Your task to perform on an android device: Open CNN.com Image 0: 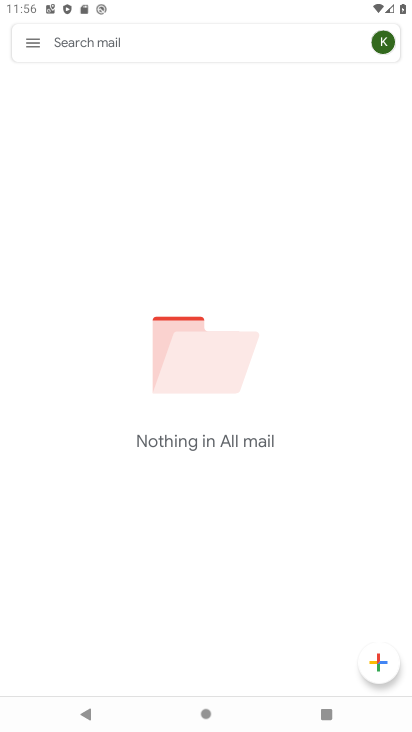
Step 0: press home button
Your task to perform on an android device: Open CNN.com Image 1: 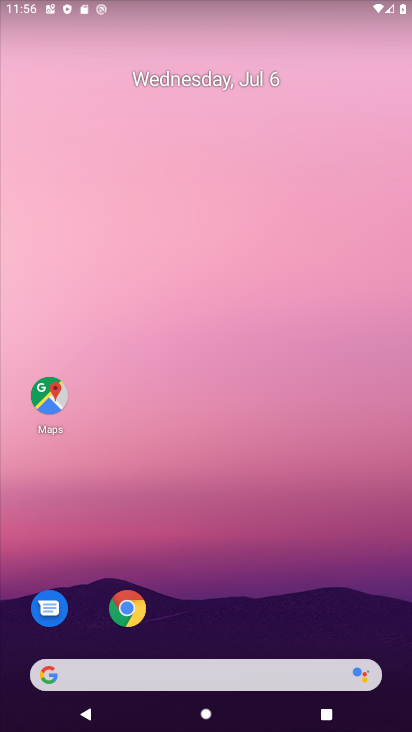
Step 1: drag from (156, 623) to (185, 222)
Your task to perform on an android device: Open CNN.com Image 2: 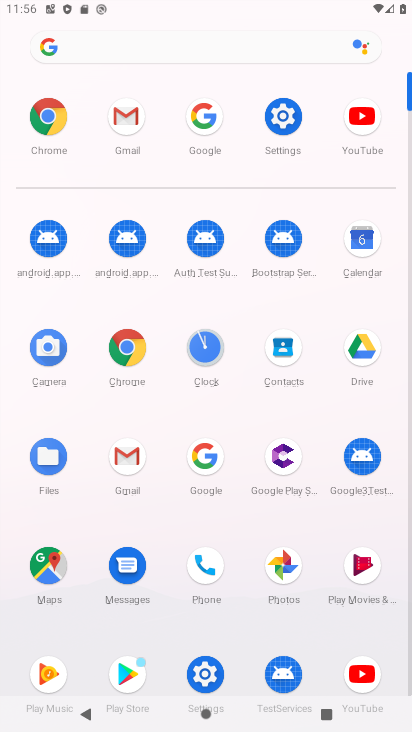
Step 2: click (202, 464)
Your task to perform on an android device: Open CNN.com Image 3: 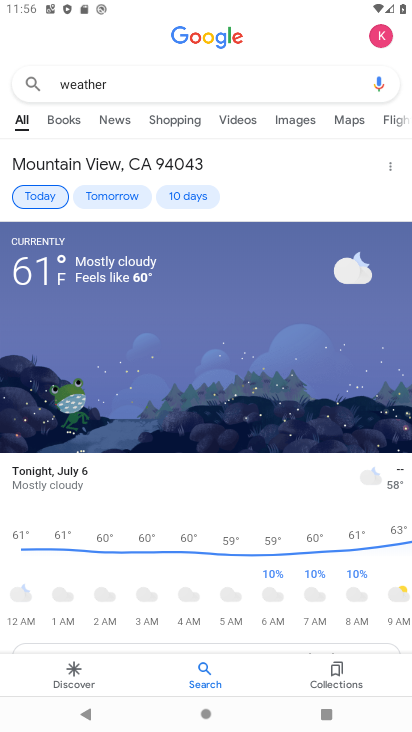
Step 3: click (112, 77)
Your task to perform on an android device: Open CNN.com Image 4: 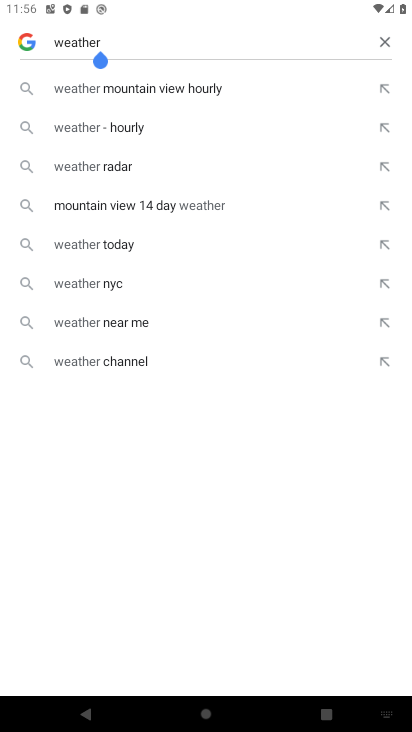
Step 4: click (391, 39)
Your task to perform on an android device: Open CNN.com Image 5: 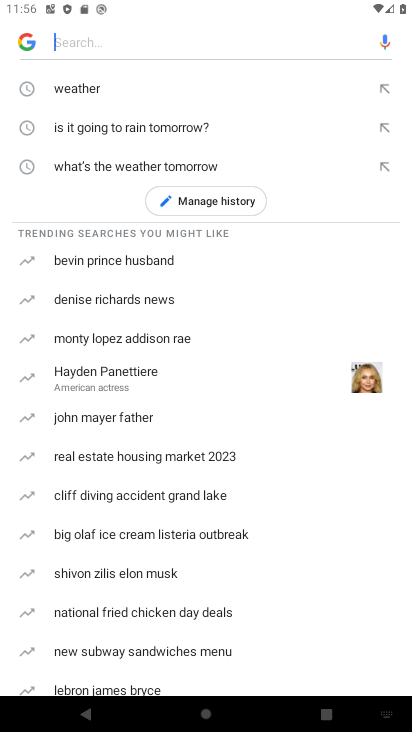
Step 5: type "CNN.com"
Your task to perform on an android device: Open CNN.com Image 6: 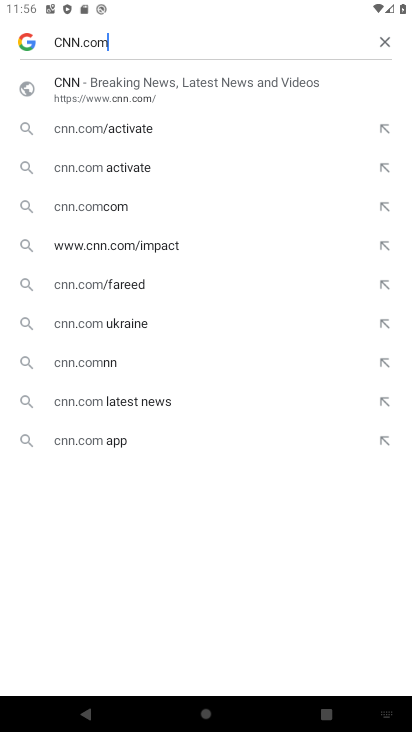
Step 6: click (91, 89)
Your task to perform on an android device: Open CNN.com Image 7: 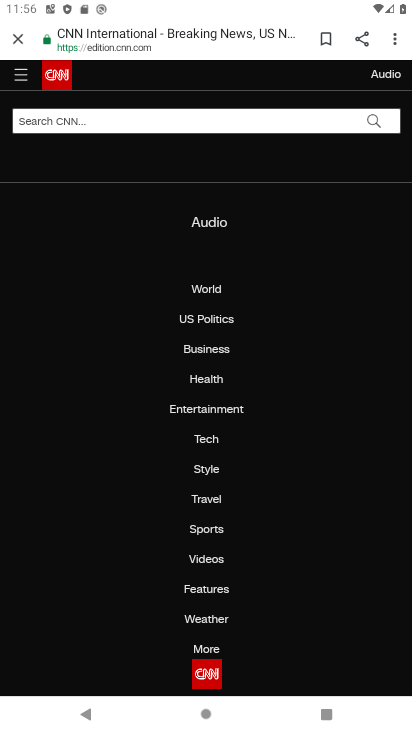
Step 7: task complete